Your task to perform on an android device: Go to calendar. Show me events next week Image 0: 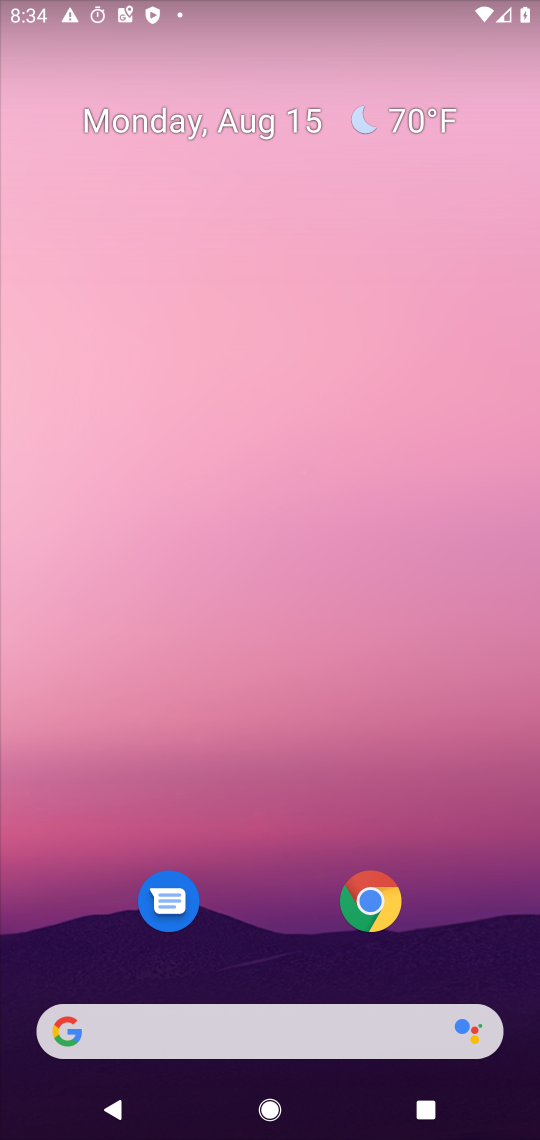
Step 0: drag from (258, 800) to (277, 186)
Your task to perform on an android device: Go to calendar. Show me events next week Image 1: 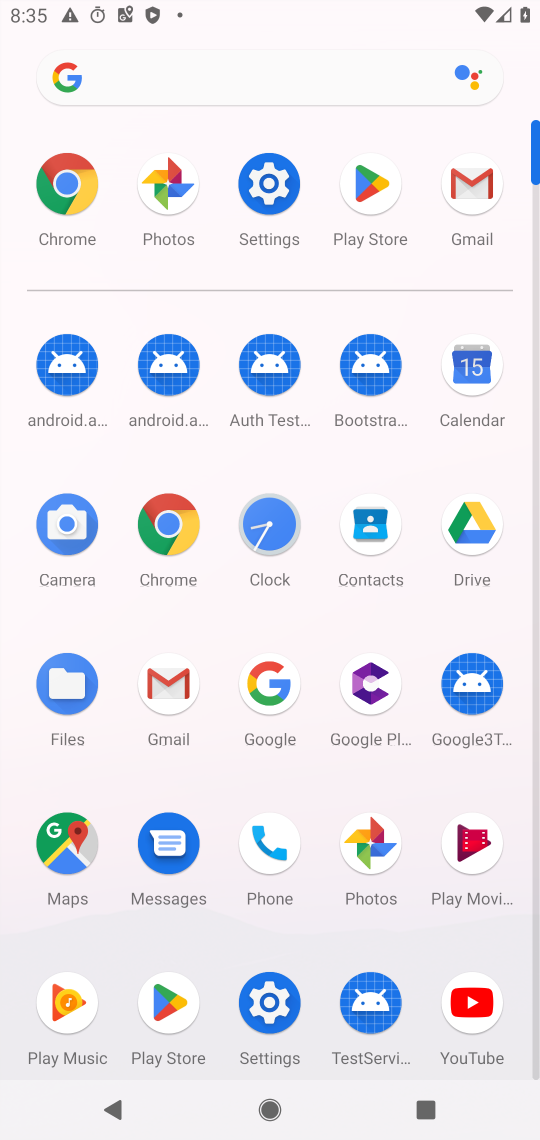
Step 1: click (479, 390)
Your task to perform on an android device: Go to calendar. Show me events next week Image 2: 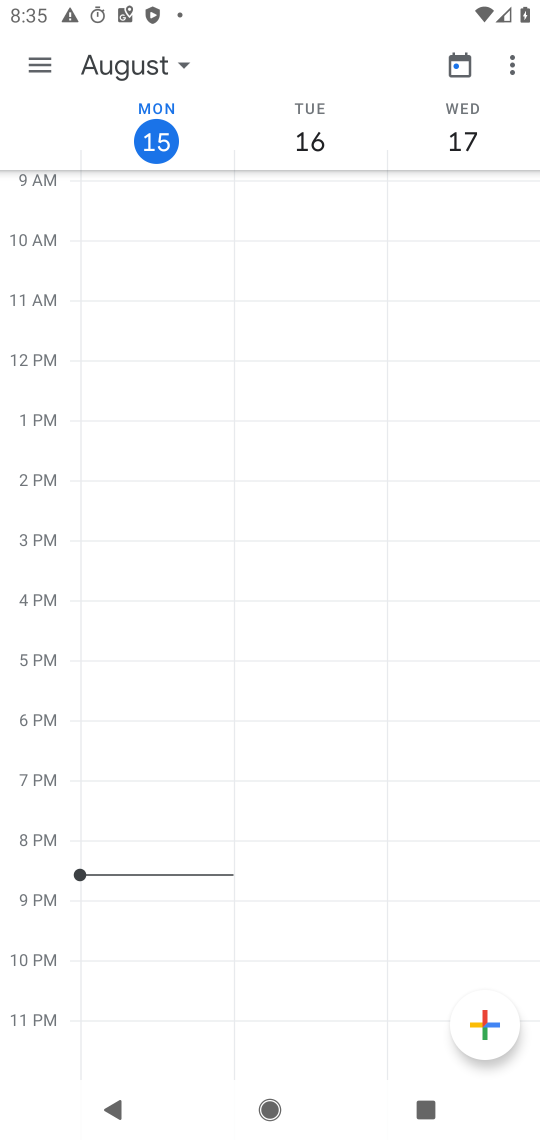
Step 2: click (39, 63)
Your task to perform on an android device: Go to calendar. Show me events next week Image 3: 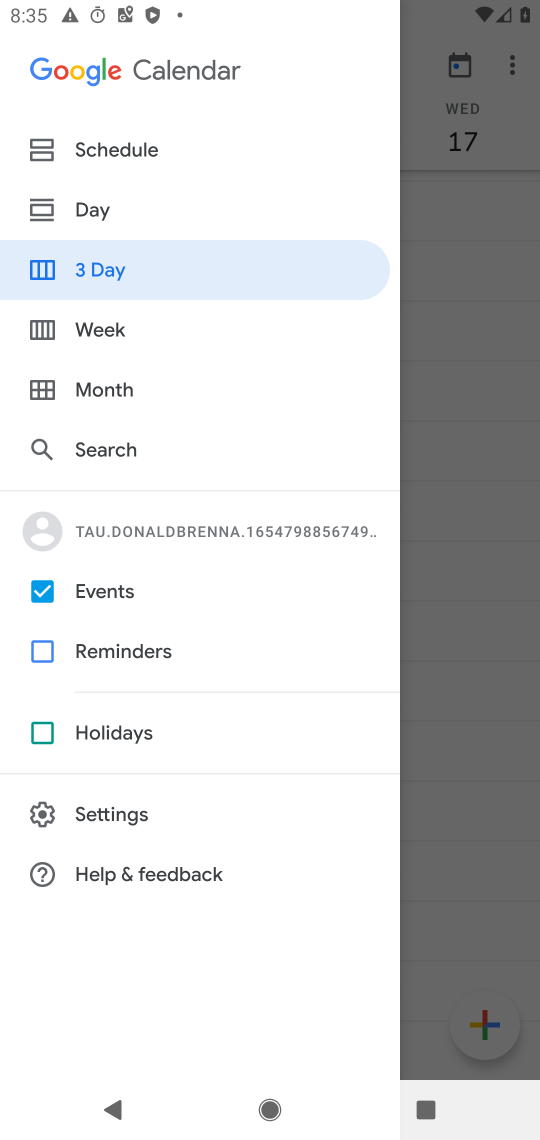
Step 3: click (116, 331)
Your task to perform on an android device: Go to calendar. Show me events next week Image 4: 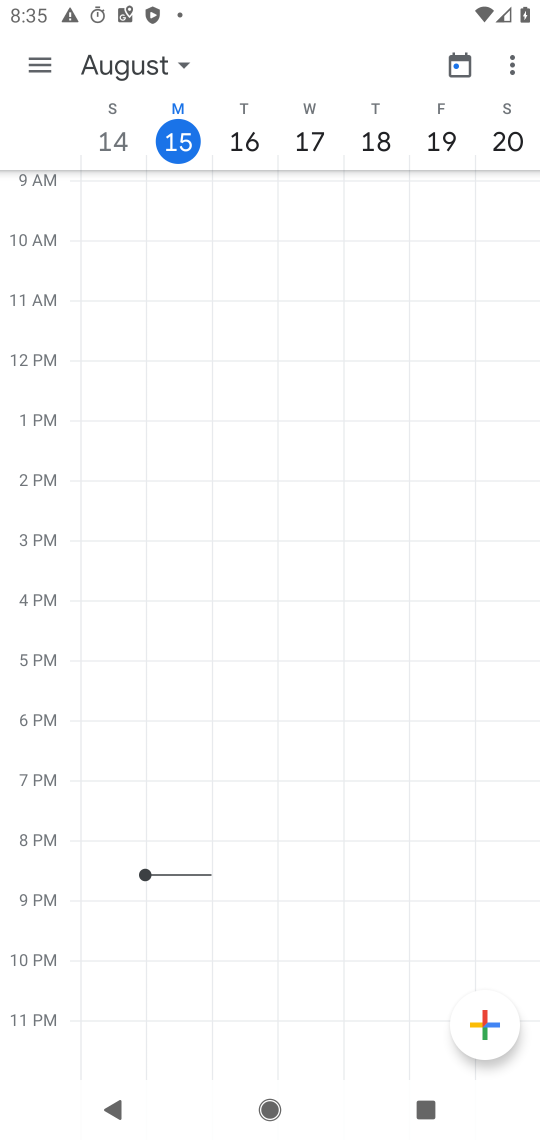
Step 4: task complete